Your task to perform on an android device: turn on data saver in the chrome app Image 0: 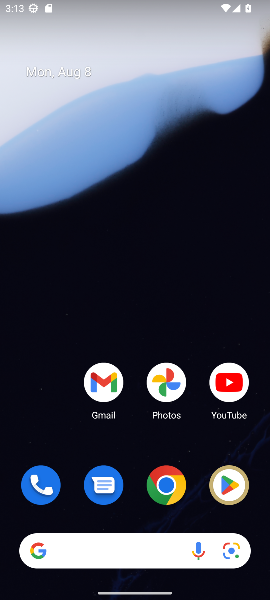
Step 0: drag from (141, 530) to (85, 80)
Your task to perform on an android device: turn on data saver in the chrome app Image 1: 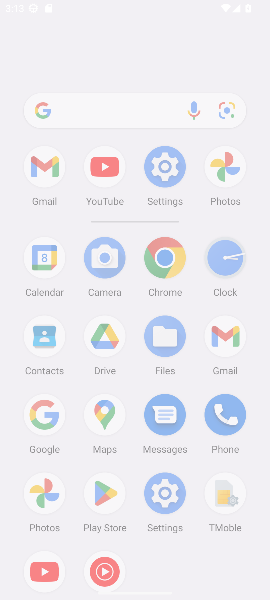
Step 1: drag from (159, 452) to (142, 119)
Your task to perform on an android device: turn on data saver in the chrome app Image 2: 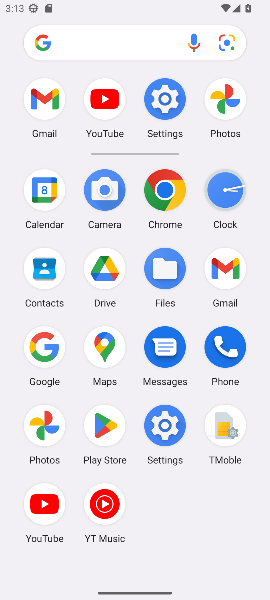
Step 2: click (164, 194)
Your task to perform on an android device: turn on data saver in the chrome app Image 3: 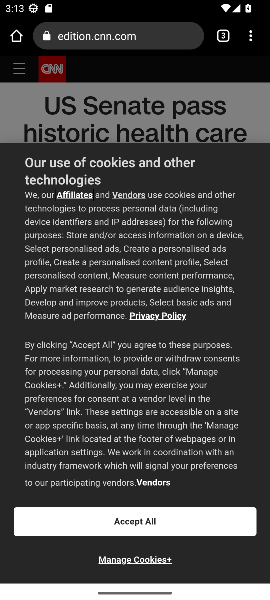
Step 3: drag from (249, 36) to (155, 463)
Your task to perform on an android device: turn on data saver in the chrome app Image 4: 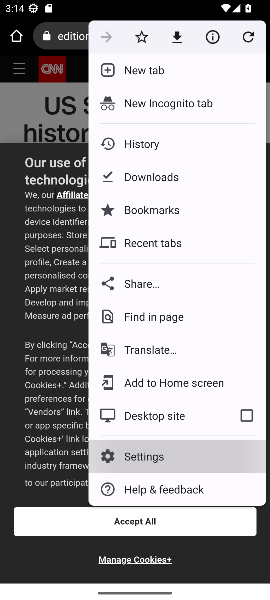
Step 4: click (155, 463)
Your task to perform on an android device: turn on data saver in the chrome app Image 5: 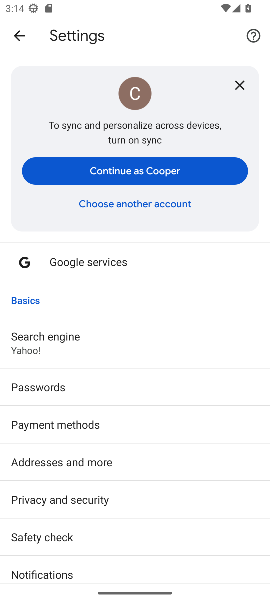
Step 5: task complete